Your task to perform on an android device: Search for Italian restaurants on Maps Image 0: 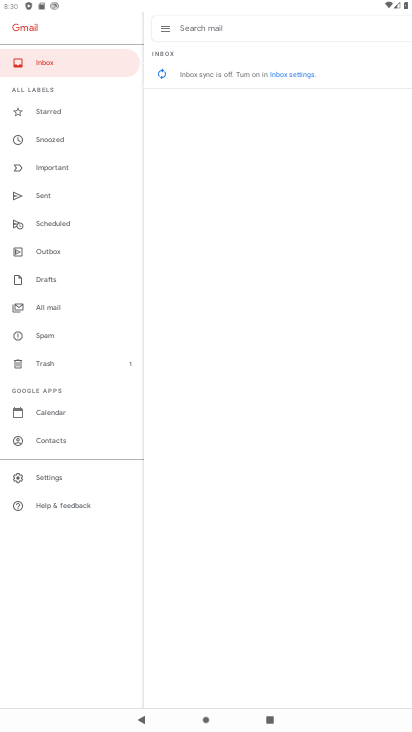
Step 0: press home button
Your task to perform on an android device: Search for Italian restaurants on Maps Image 1: 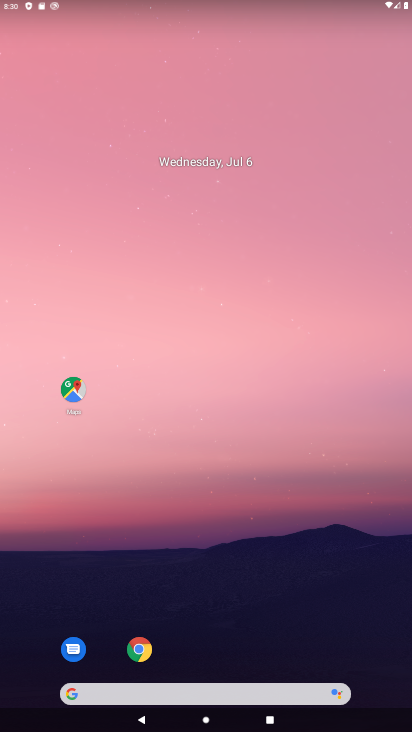
Step 1: drag from (209, 649) to (222, 114)
Your task to perform on an android device: Search for Italian restaurants on Maps Image 2: 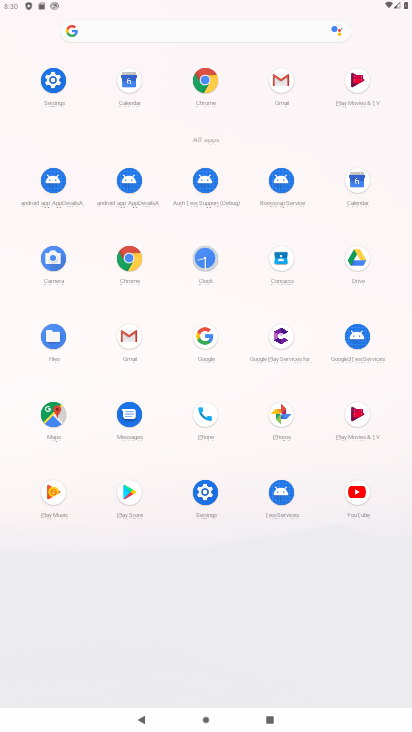
Step 2: click (59, 421)
Your task to perform on an android device: Search for Italian restaurants on Maps Image 3: 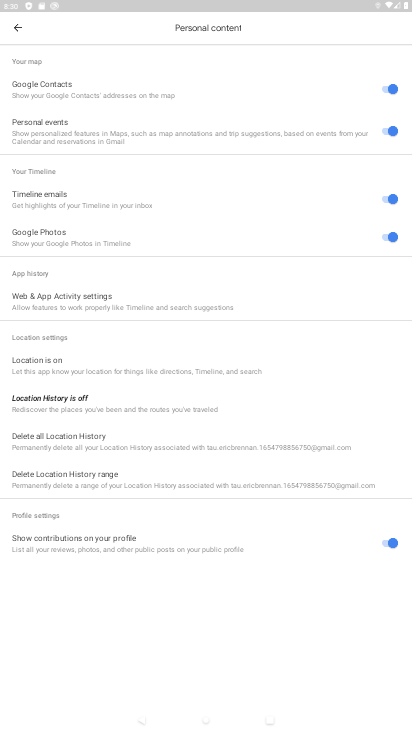
Step 3: click (16, 23)
Your task to perform on an android device: Search for Italian restaurants on Maps Image 4: 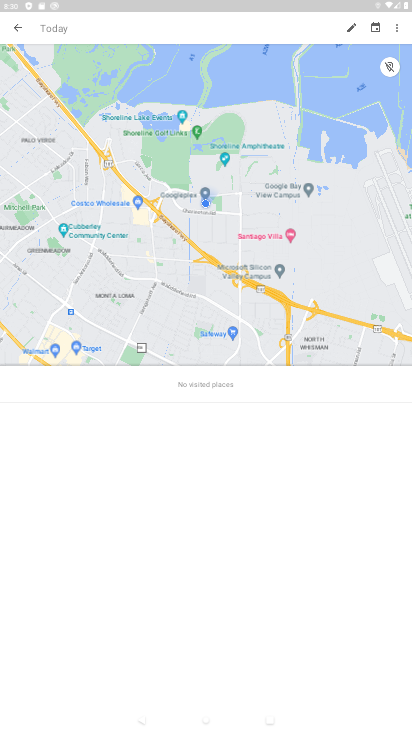
Step 4: click (17, 27)
Your task to perform on an android device: Search for Italian restaurants on Maps Image 5: 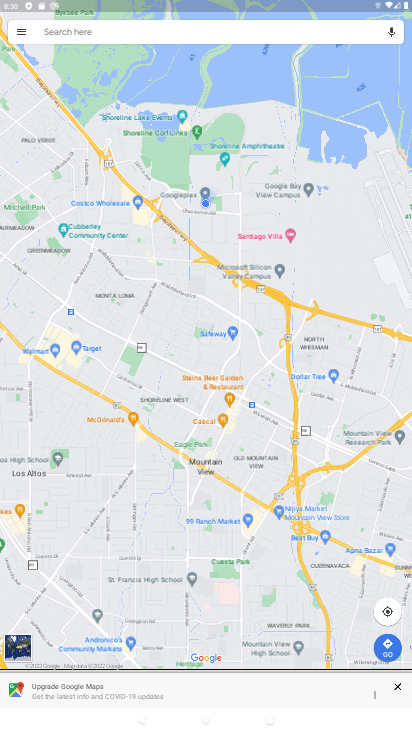
Step 5: click (155, 33)
Your task to perform on an android device: Search for Italian restaurants on Maps Image 6: 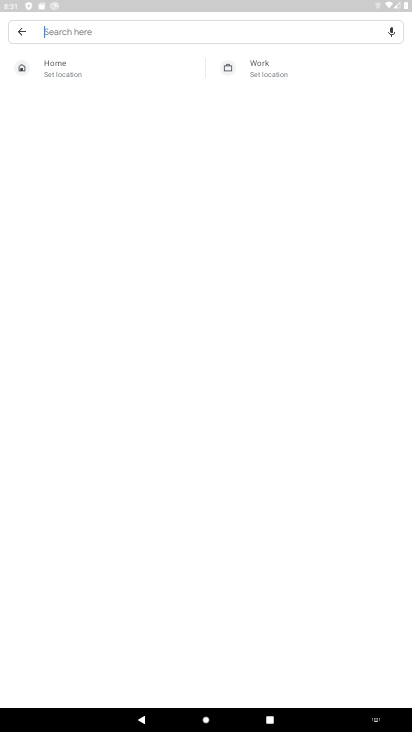
Step 6: type "italian restaurants"
Your task to perform on an android device: Search for Italian restaurants on Maps Image 7: 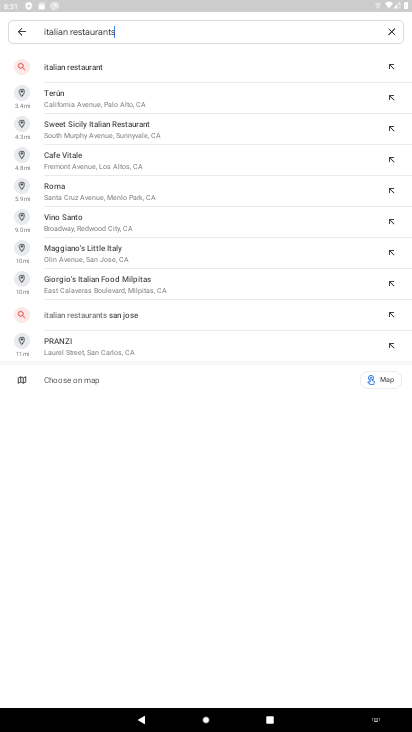
Step 7: click (186, 71)
Your task to perform on an android device: Search for Italian restaurants on Maps Image 8: 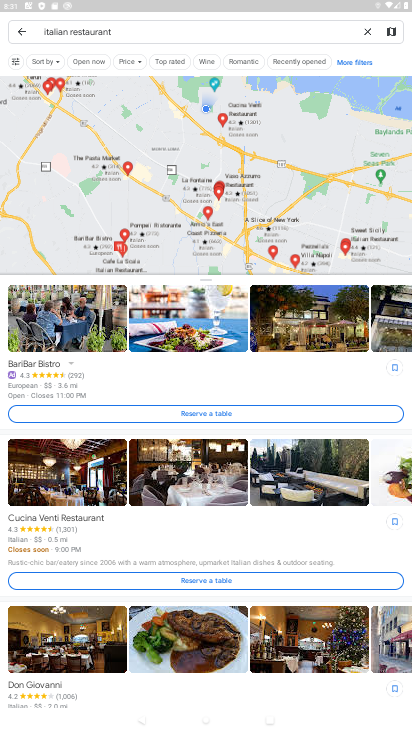
Step 8: task complete